Your task to perform on an android device: turn vacation reply on in the gmail app Image 0: 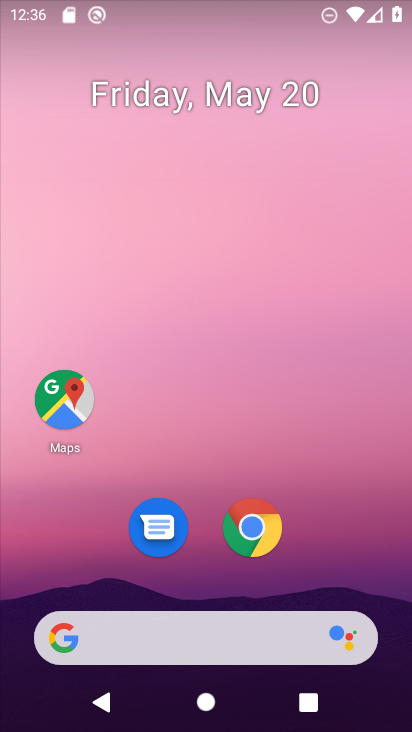
Step 0: press home button
Your task to perform on an android device: turn vacation reply on in the gmail app Image 1: 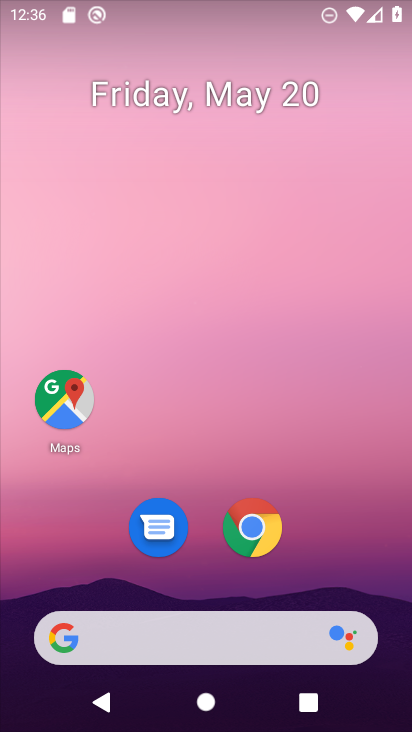
Step 1: drag from (394, 440) to (347, 255)
Your task to perform on an android device: turn vacation reply on in the gmail app Image 2: 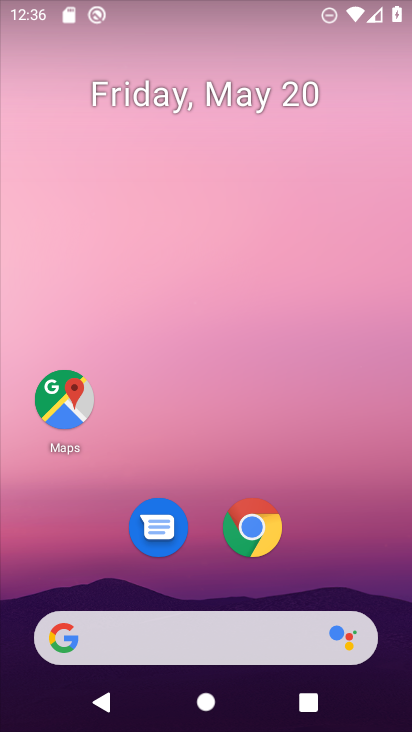
Step 2: drag from (401, 537) to (379, 227)
Your task to perform on an android device: turn vacation reply on in the gmail app Image 3: 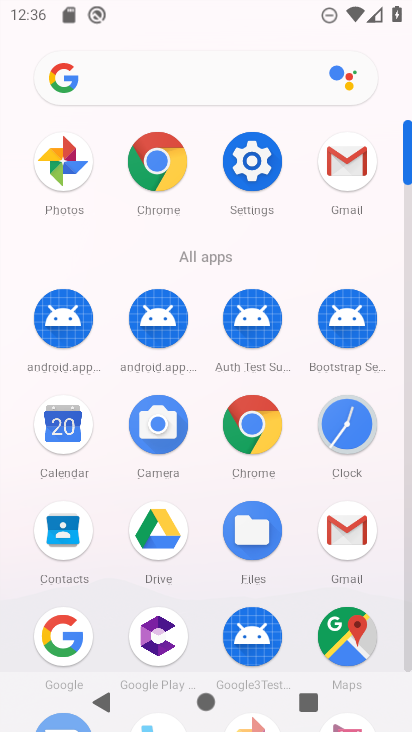
Step 3: click (342, 531)
Your task to perform on an android device: turn vacation reply on in the gmail app Image 4: 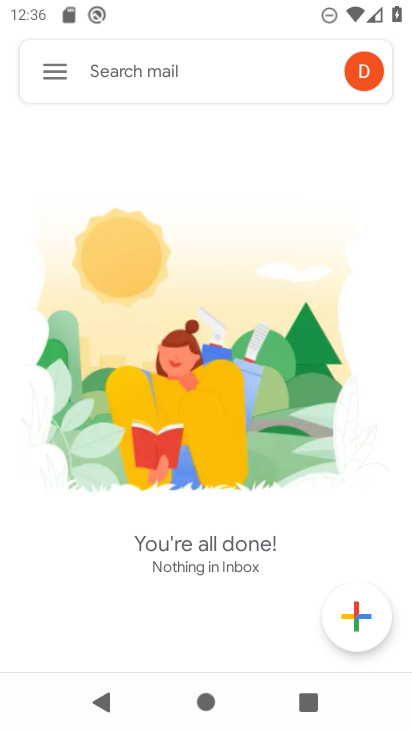
Step 4: click (56, 74)
Your task to perform on an android device: turn vacation reply on in the gmail app Image 5: 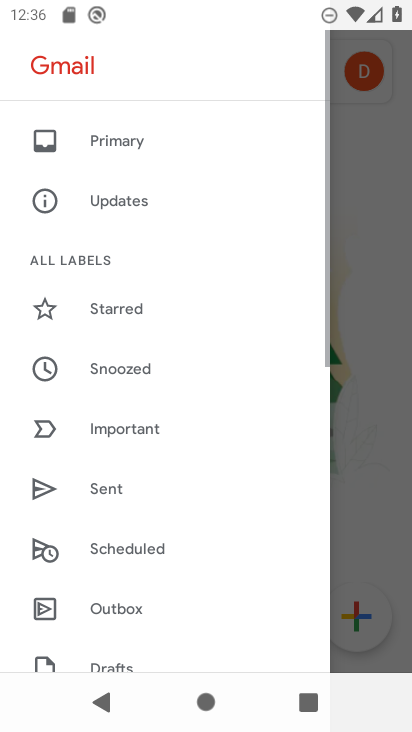
Step 5: drag from (180, 605) to (173, 320)
Your task to perform on an android device: turn vacation reply on in the gmail app Image 6: 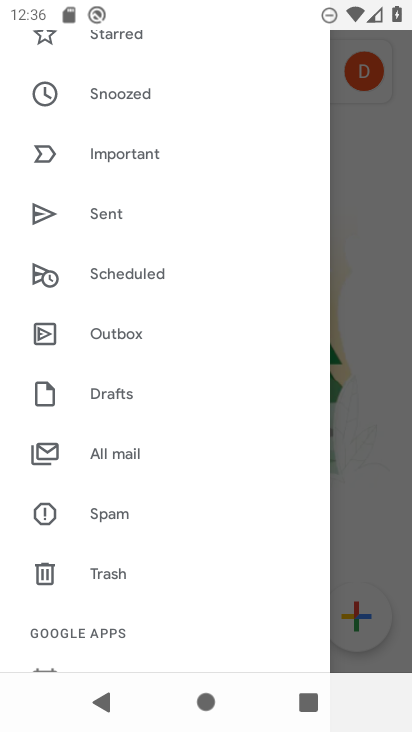
Step 6: drag from (181, 588) to (159, 274)
Your task to perform on an android device: turn vacation reply on in the gmail app Image 7: 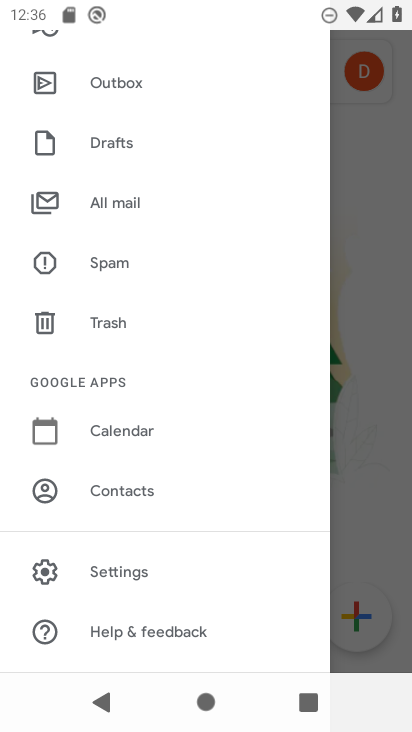
Step 7: click (104, 573)
Your task to perform on an android device: turn vacation reply on in the gmail app Image 8: 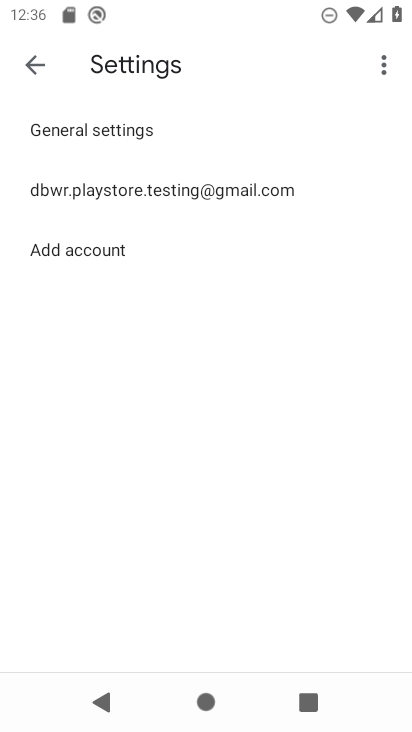
Step 8: click (83, 188)
Your task to perform on an android device: turn vacation reply on in the gmail app Image 9: 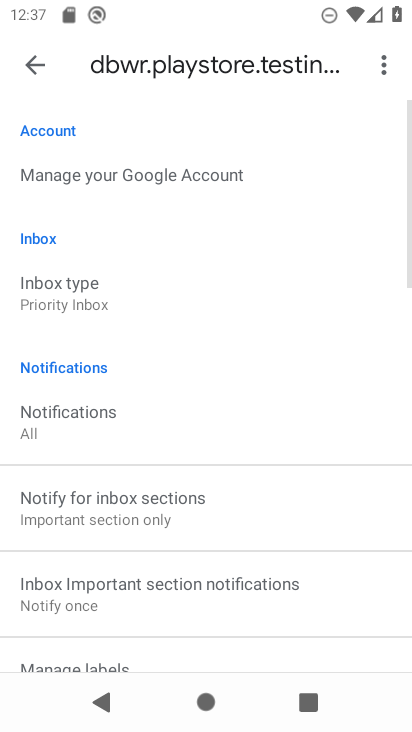
Step 9: drag from (337, 653) to (335, 218)
Your task to perform on an android device: turn vacation reply on in the gmail app Image 10: 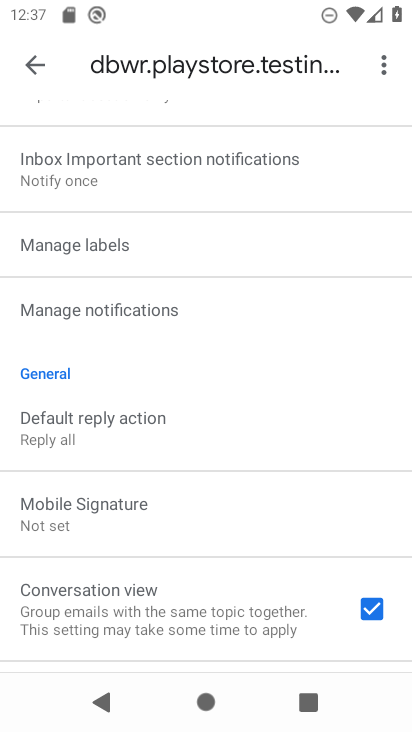
Step 10: drag from (313, 602) to (291, 253)
Your task to perform on an android device: turn vacation reply on in the gmail app Image 11: 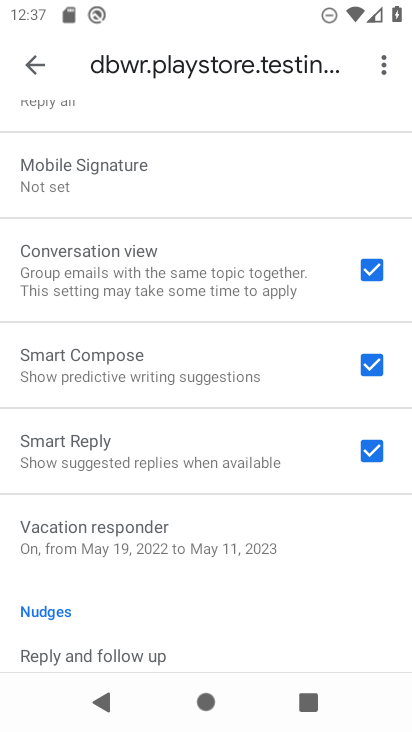
Step 11: drag from (261, 630) to (257, 348)
Your task to perform on an android device: turn vacation reply on in the gmail app Image 12: 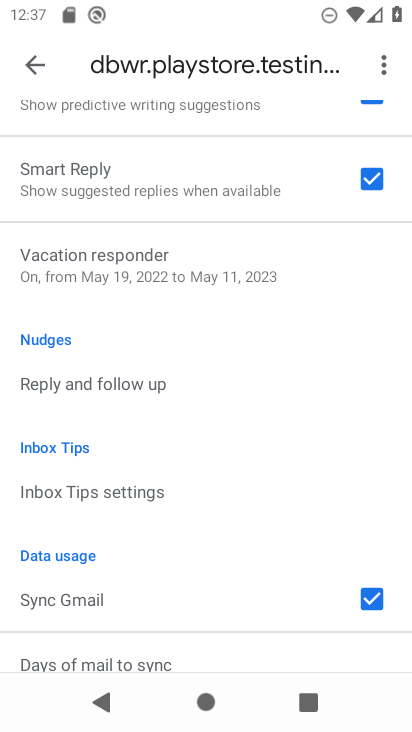
Step 12: drag from (289, 651) to (305, 310)
Your task to perform on an android device: turn vacation reply on in the gmail app Image 13: 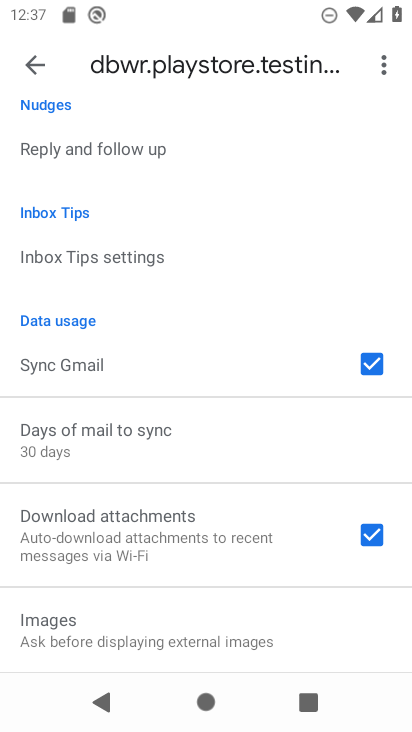
Step 13: click (30, 66)
Your task to perform on an android device: turn vacation reply on in the gmail app Image 14: 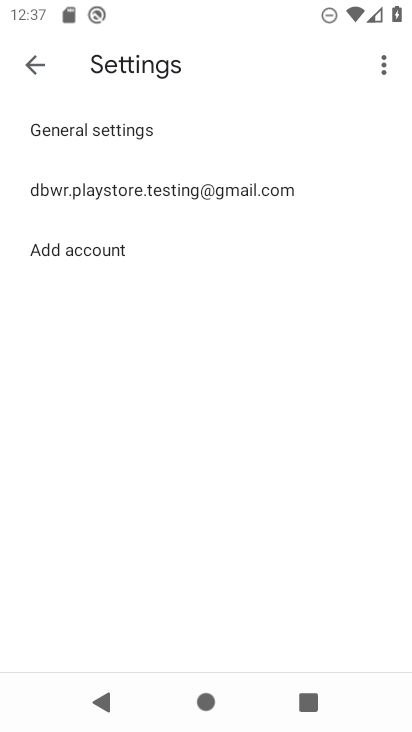
Step 14: click (116, 184)
Your task to perform on an android device: turn vacation reply on in the gmail app Image 15: 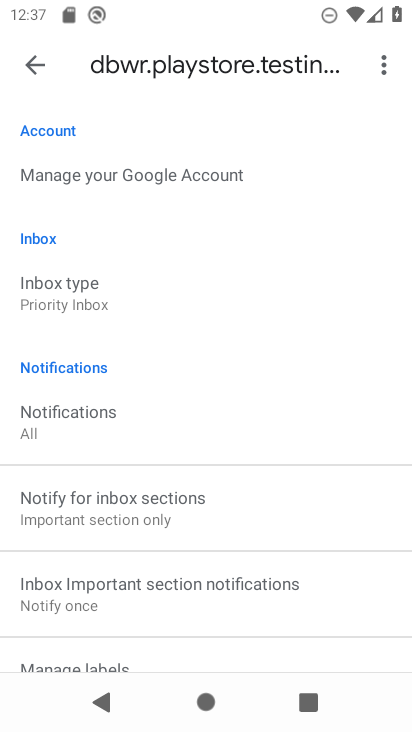
Step 15: drag from (306, 648) to (313, 364)
Your task to perform on an android device: turn vacation reply on in the gmail app Image 16: 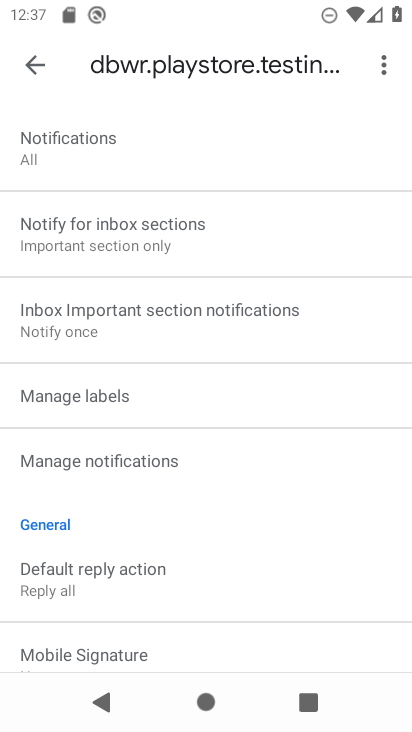
Step 16: drag from (303, 649) to (306, 292)
Your task to perform on an android device: turn vacation reply on in the gmail app Image 17: 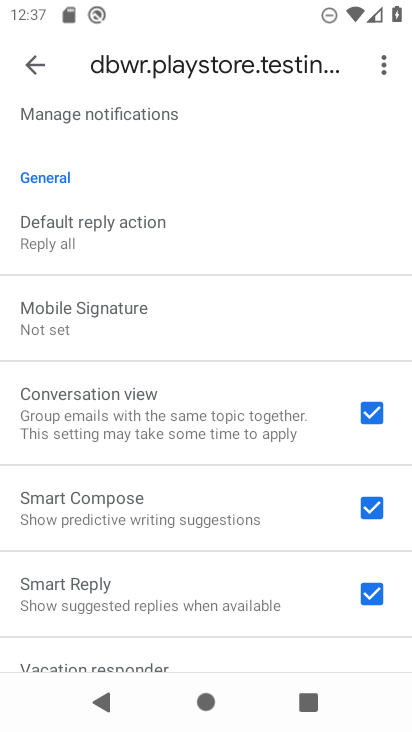
Step 17: drag from (225, 648) to (226, 337)
Your task to perform on an android device: turn vacation reply on in the gmail app Image 18: 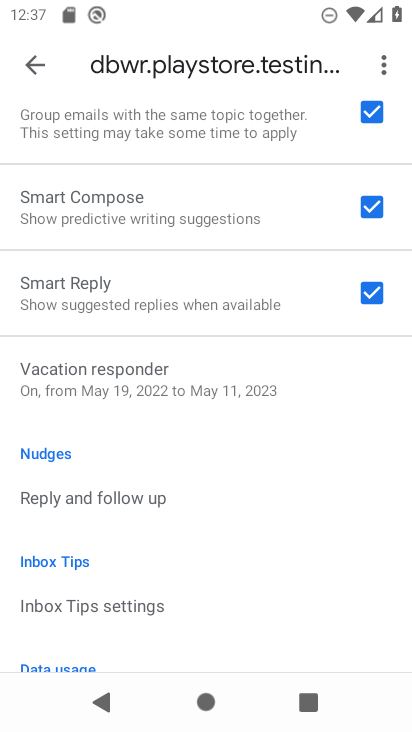
Step 18: click (88, 373)
Your task to perform on an android device: turn vacation reply on in the gmail app Image 19: 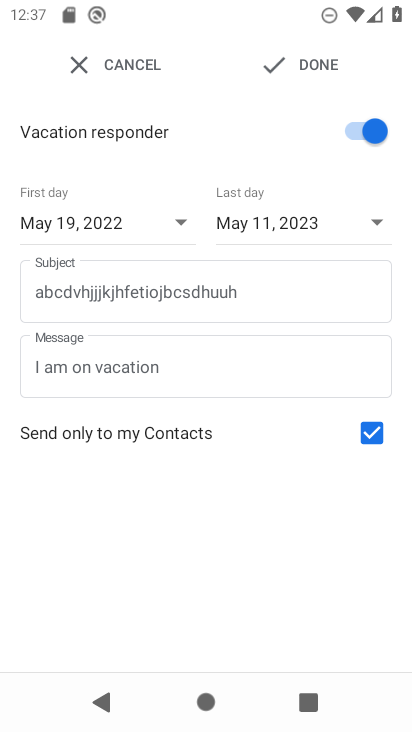
Step 19: task complete